Your task to perform on an android device: change the clock display to analog Image 0: 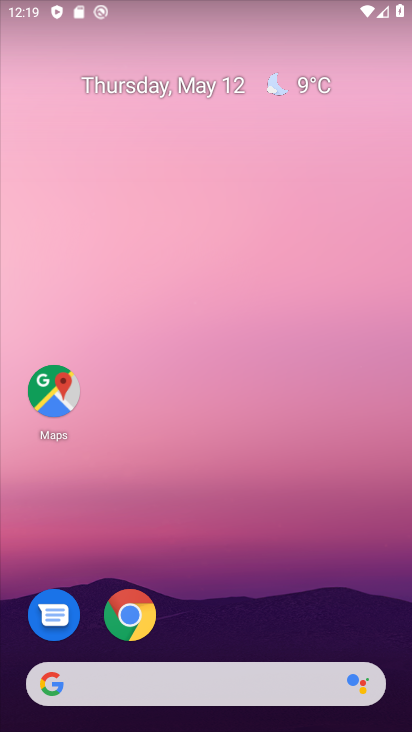
Step 0: drag from (219, 580) to (200, 104)
Your task to perform on an android device: change the clock display to analog Image 1: 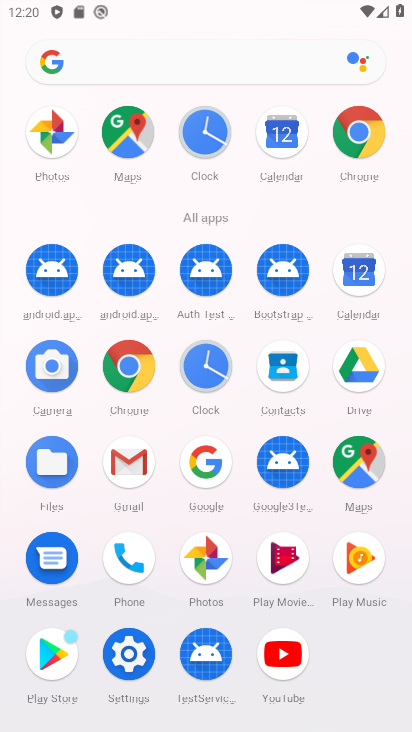
Step 1: click (203, 131)
Your task to perform on an android device: change the clock display to analog Image 2: 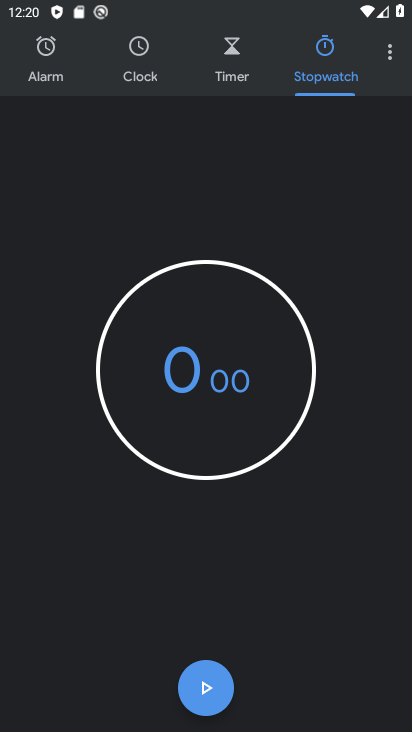
Step 2: click (391, 52)
Your task to perform on an android device: change the clock display to analog Image 3: 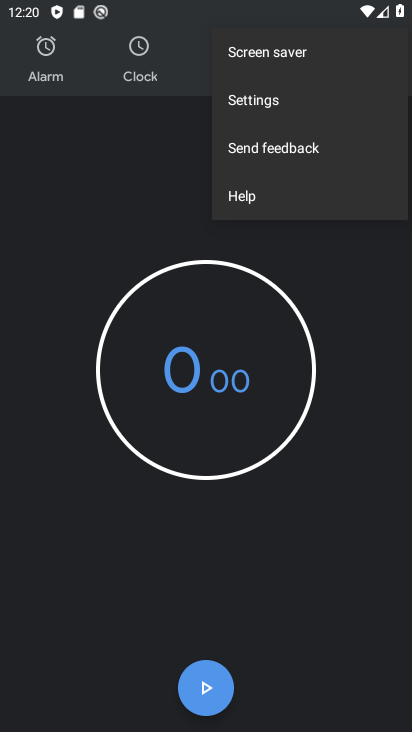
Step 3: click (261, 101)
Your task to perform on an android device: change the clock display to analog Image 4: 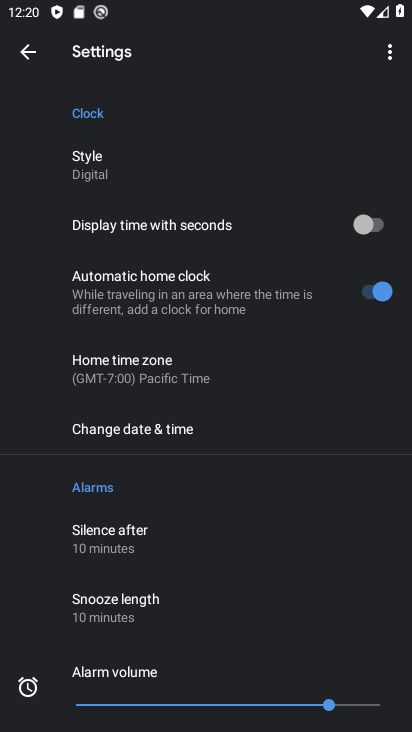
Step 4: click (101, 168)
Your task to perform on an android device: change the clock display to analog Image 5: 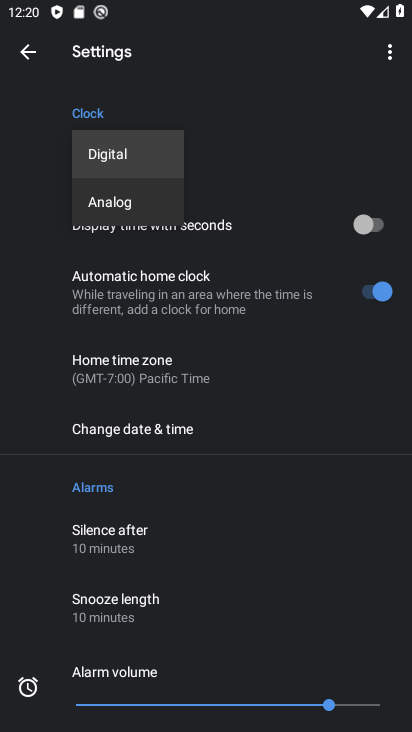
Step 5: click (124, 201)
Your task to perform on an android device: change the clock display to analog Image 6: 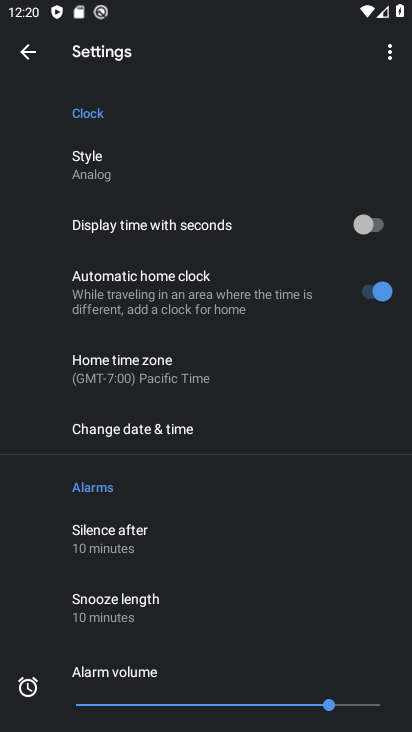
Step 6: task complete